Your task to perform on an android device: Open privacy settings Image 0: 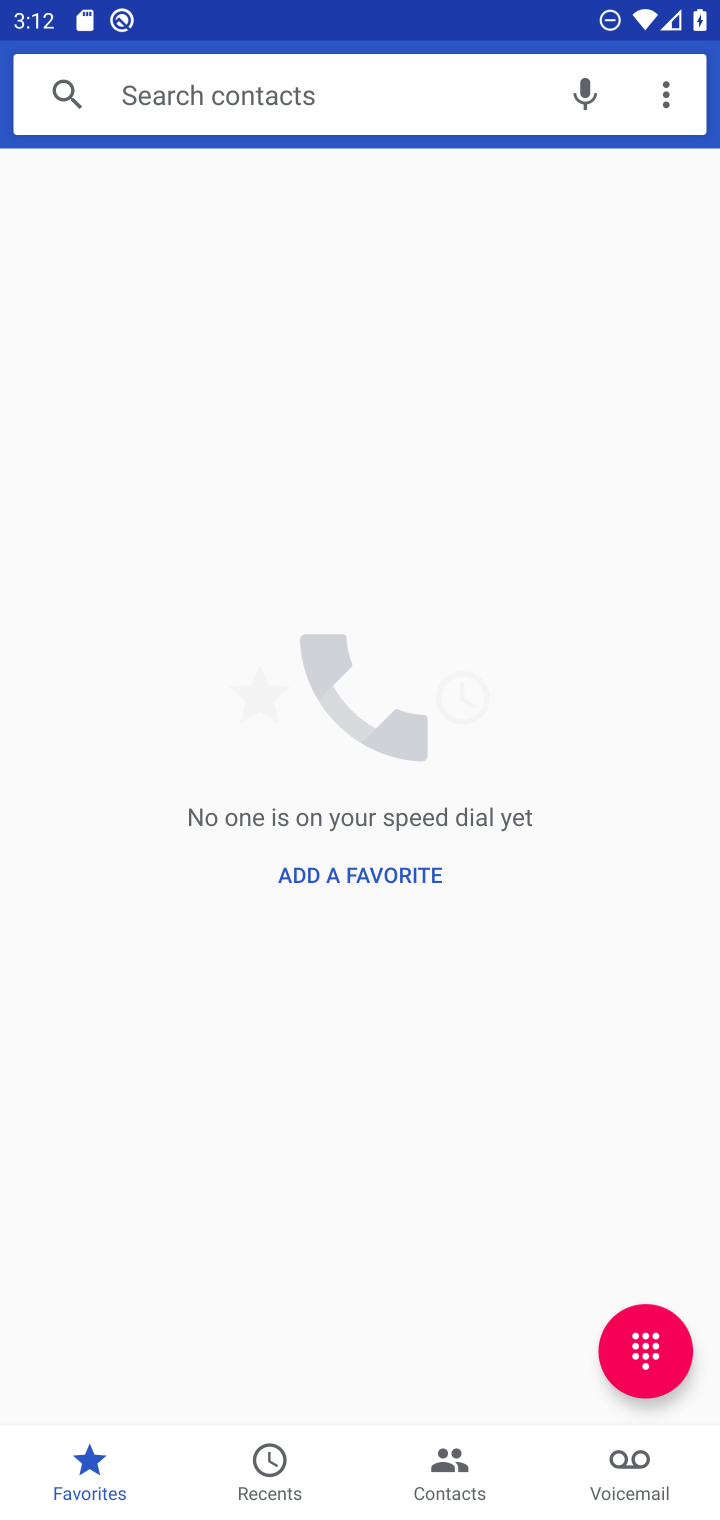
Step 0: press home button
Your task to perform on an android device: Open privacy settings Image 1: 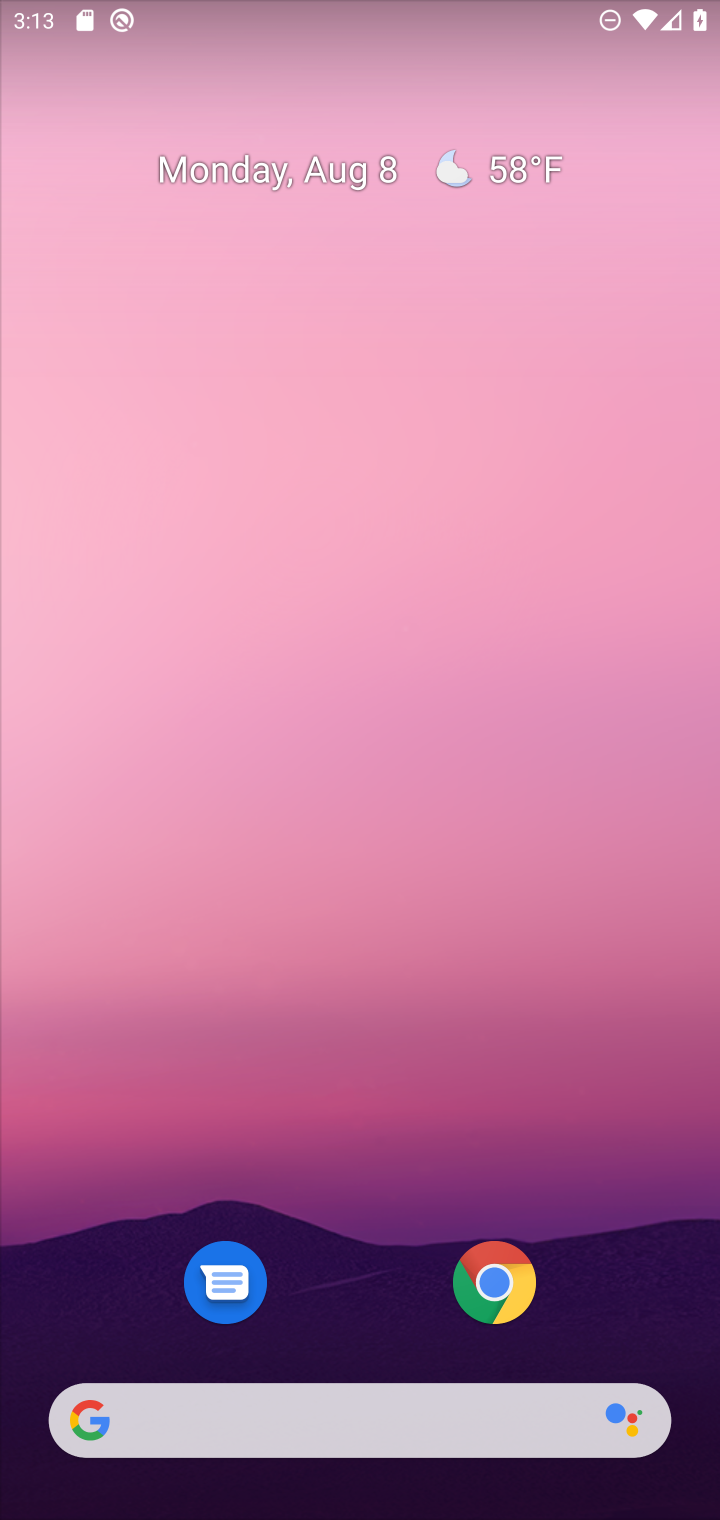
Step 1: drag from (364, 1280) to (538, 87)
Your task to perform on an android device: Open privacy settings Image 2: 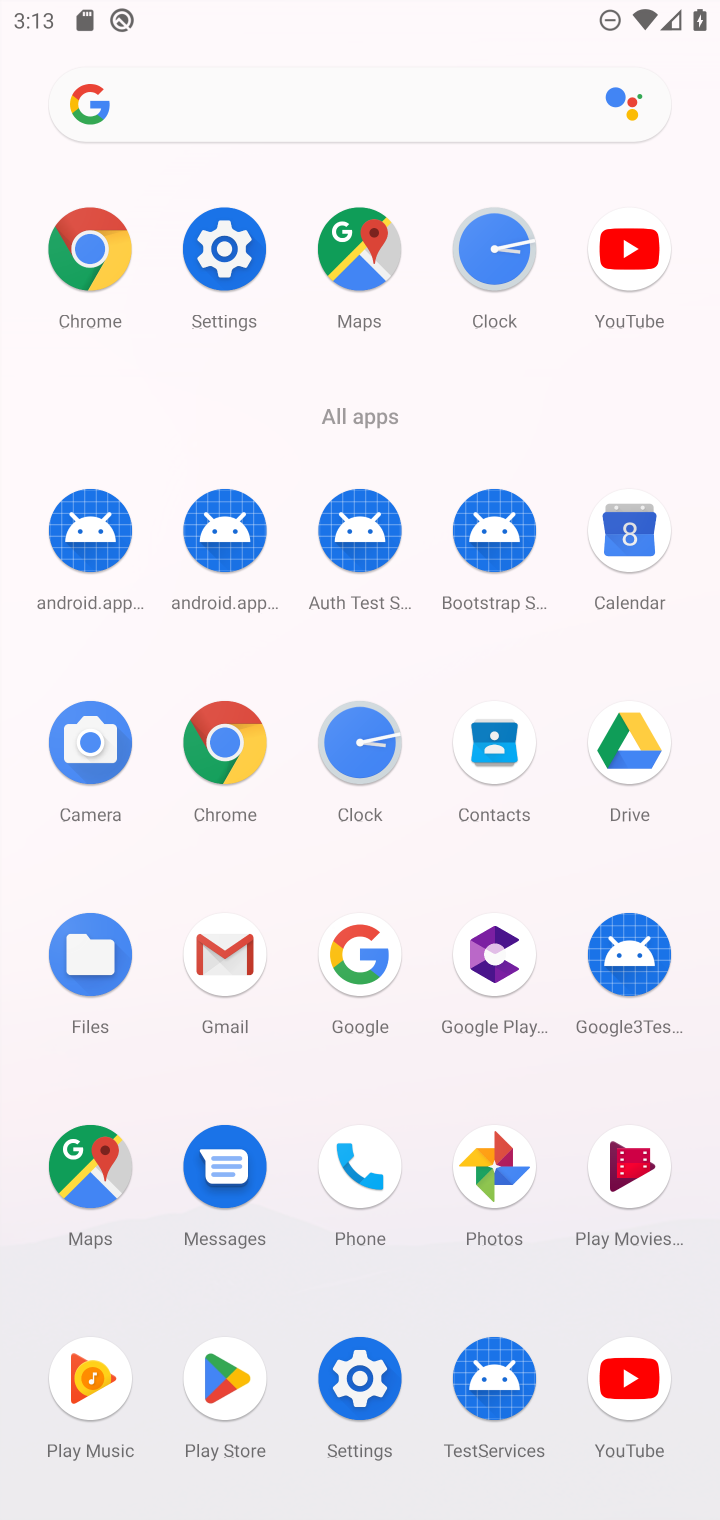
Step 2: click (228, 249)
Your task to perform on an android device: Open privacy settings Image 3: 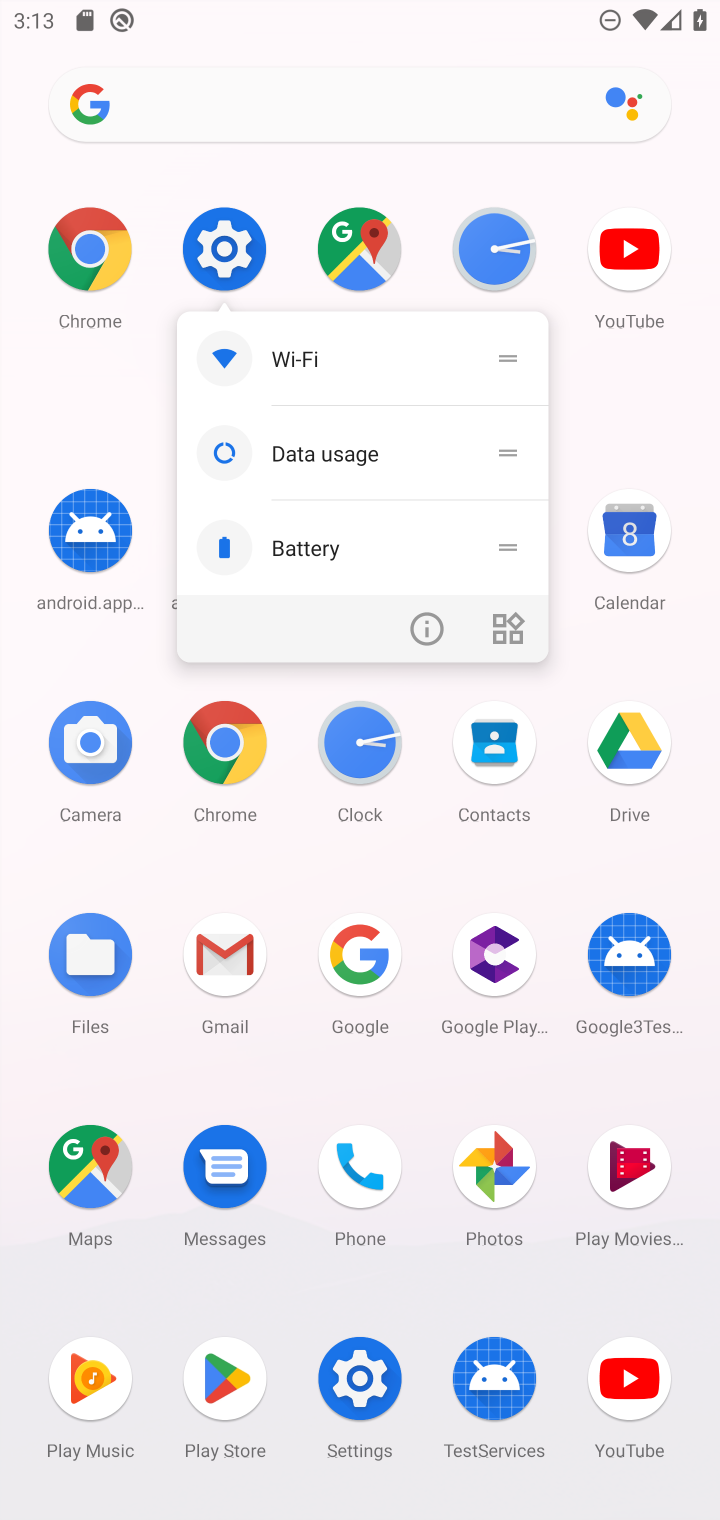
Step 3: click (228, 249)
Your task to perform on an android device: Open privacy settings Image 4: 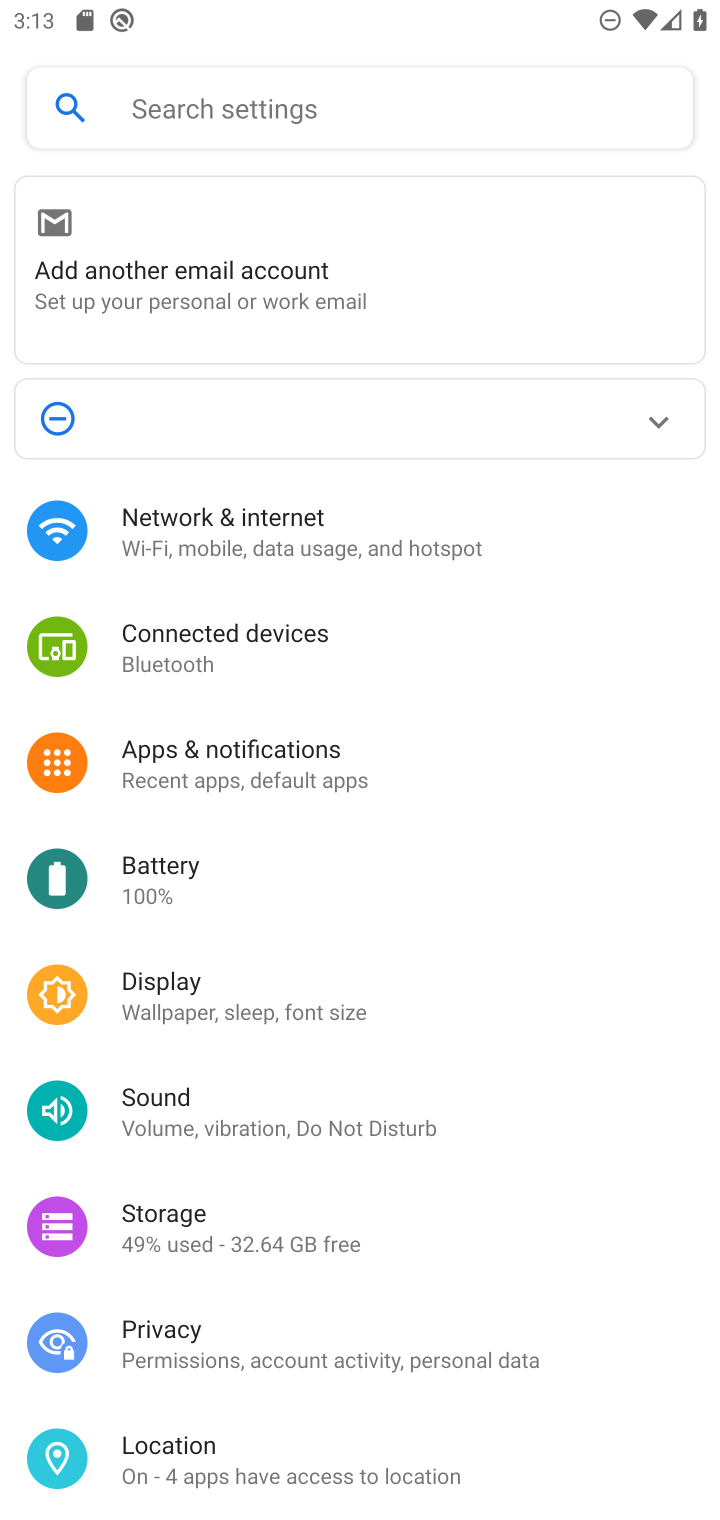
Step 4: click (163, 1343)
Your task to perform on an android device: Open privacy settings Image 5: 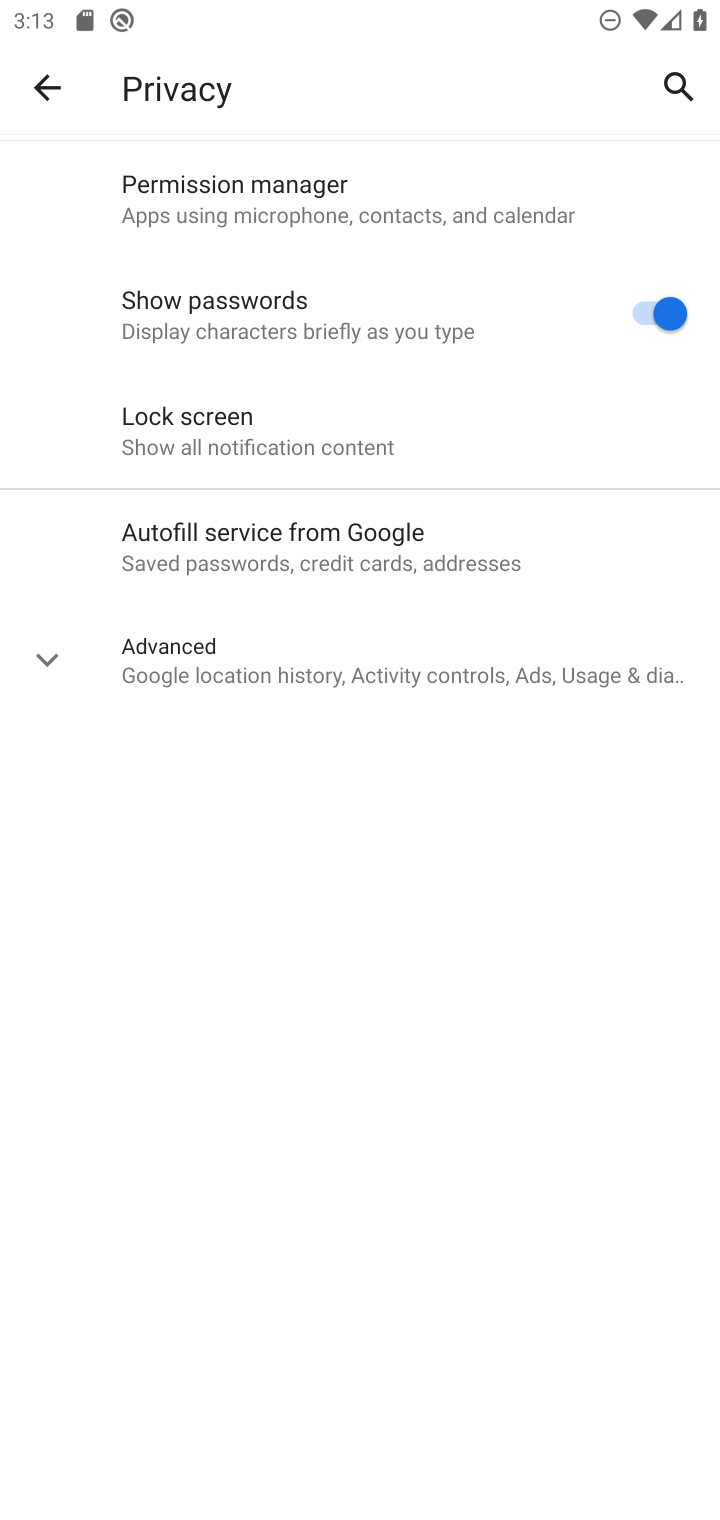
Step 5: task complete